Your task to perform on an android device: turn on priority inbox in the gmail app Image 0: 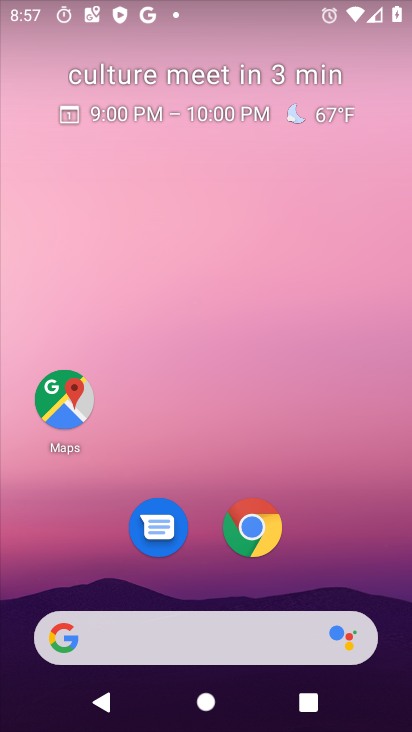
Step 0: drag from (237, 718) to (238, 61)
Your task to perform on an android device: turn on priority inbox in the gmail app Image 1: 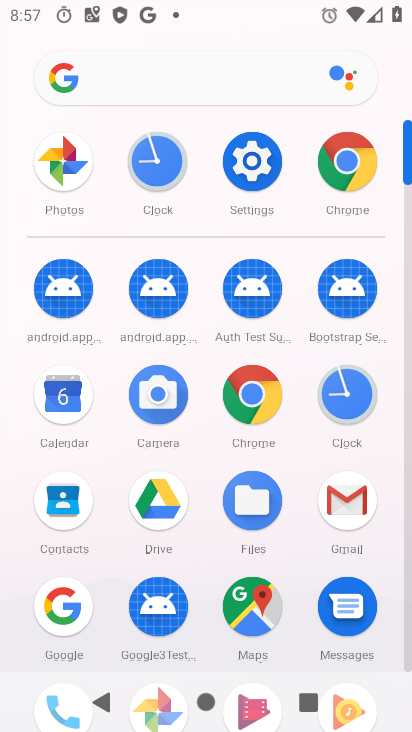
Step 1: click (347, 507)
Your task to perform on an android device: turn on priority inbox in the gmail app Image 2: 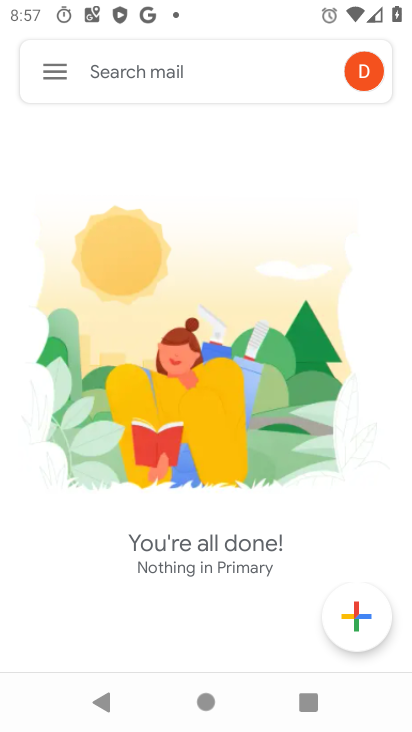
Step 2: click (49, 76)
Your task to perform on an android device: turn on priority inbox in the gmail app Image 3: 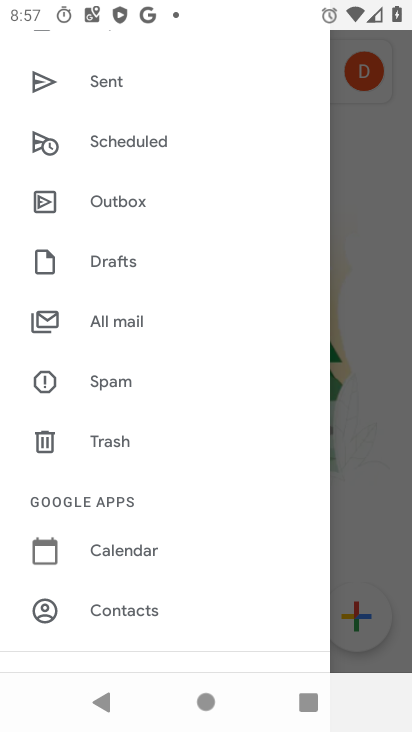
Step 3: drag from (102, 637) to (103, 341)
Your task to perform on an android device: turn on priority inbox in the gmail app Image 4: 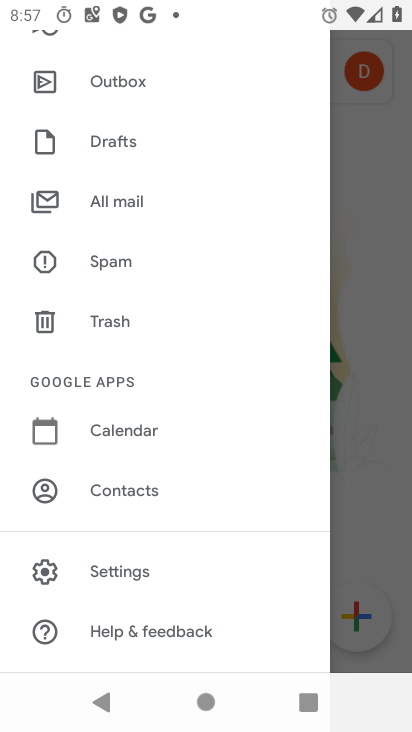
Step 4: click (124, 570)
Your task to perform on an android device: turn on priority inbox in the gmail app Image 5: 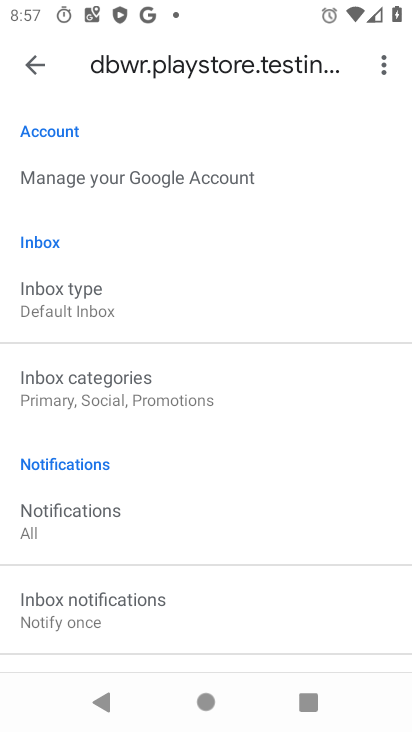
Step 5: click (72, 302)
Your task to perform on an android device: turn on priority inbox in the gmail app Image 6: 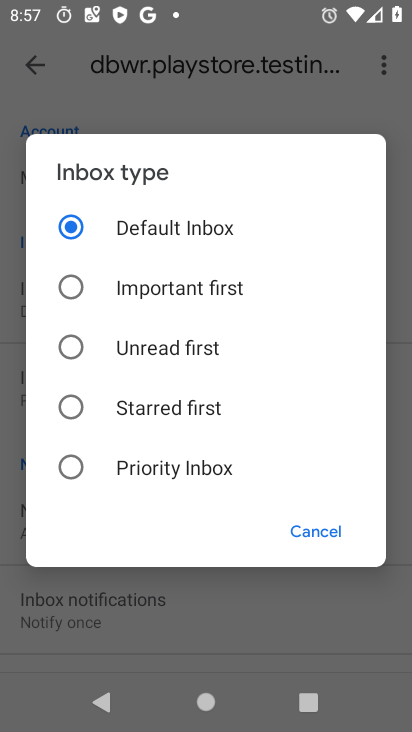
Step 6: click (70, 472)
Your task to perform on an android device: turn on priority inbox in the gmail app Image 7: 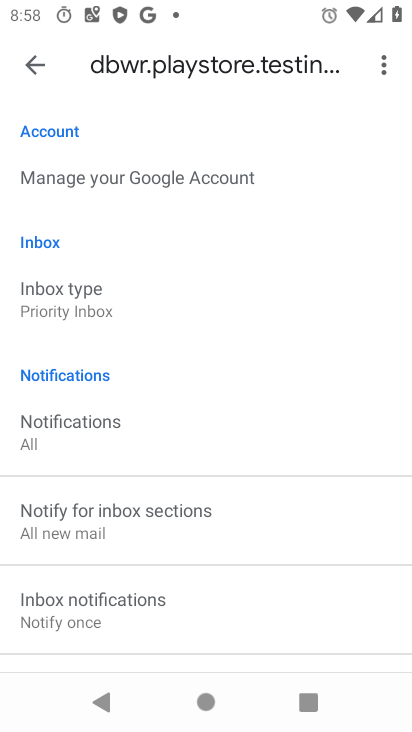
Step 7: task complete